Your task to perform on an android device: turn off improve location accuracy Image 0: 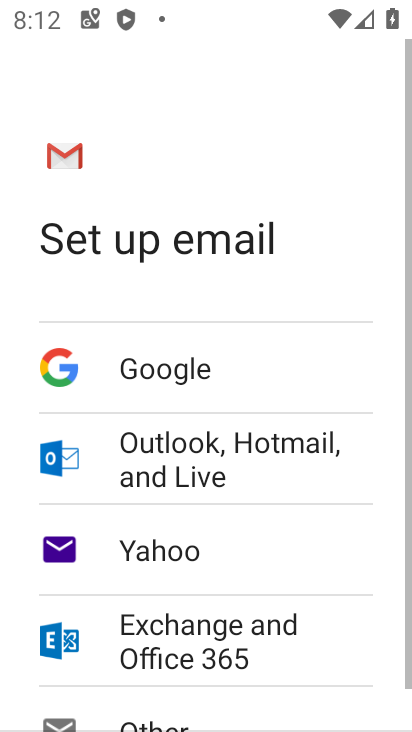
Step 0: press home button
Your task to perform on an android device: turn off improve location accuracy Image 1: 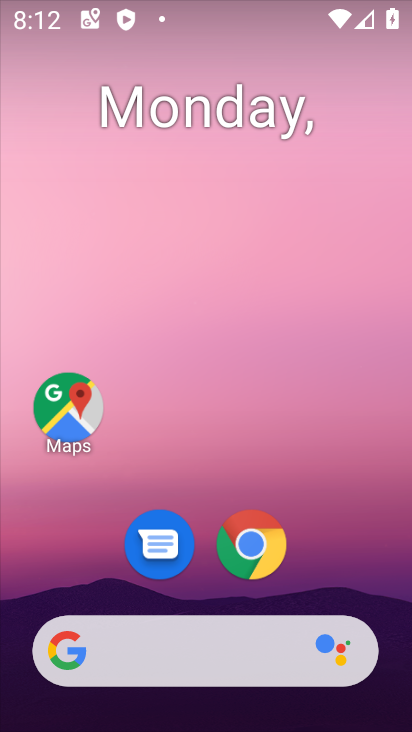
Step 1: drag from (195, 593) to (87, 2)
Your task to perform on an android device: turn off improve location accuracy Image 2: 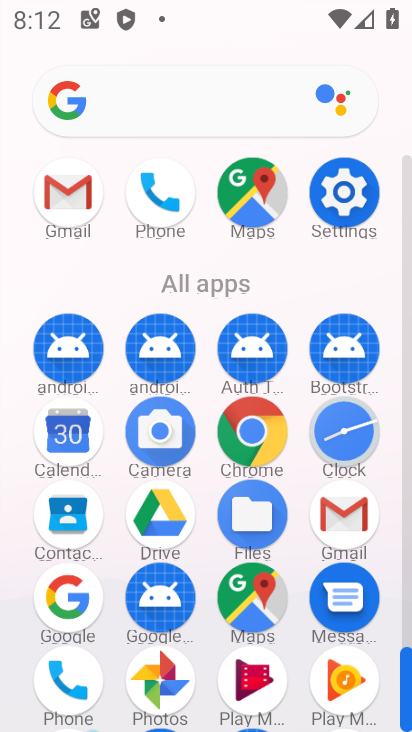
Step 2: click (344, 217)
Your task to perform on an android device: turn off improve location accuracy Image 3: 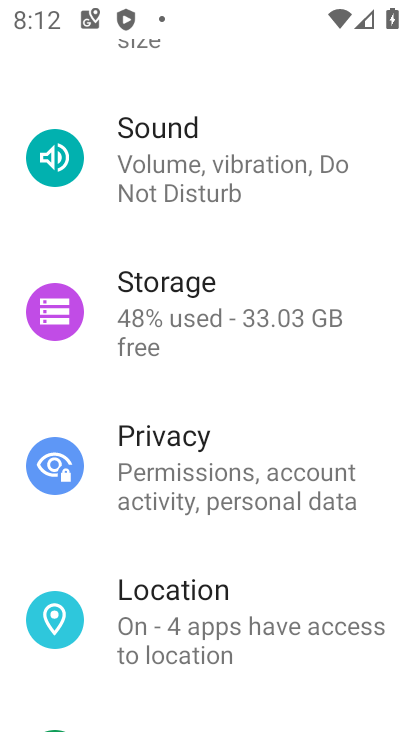
Step 3: click (190, 620)
Your task to perform on an android device: turn off improve location accuracy Image 4: 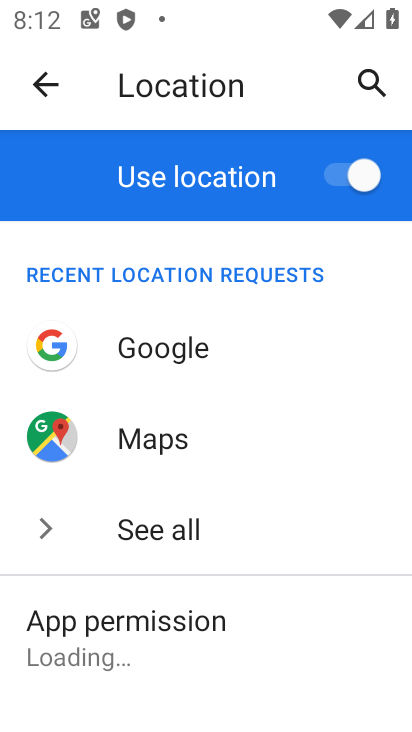
Step 4: drag from (219, 623) to (143, 135)
Your task to perform on an android device: turn off improve location accuracy Image 5: 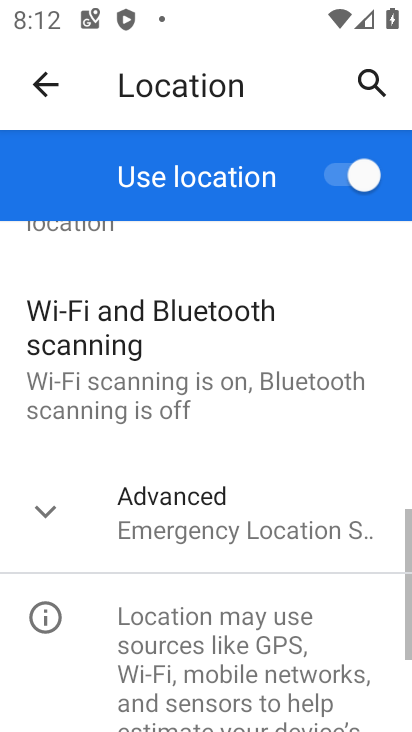
Step 5: click (174, 520)
Your task to perform on an android device: turn off improve location accuracy Image 6: 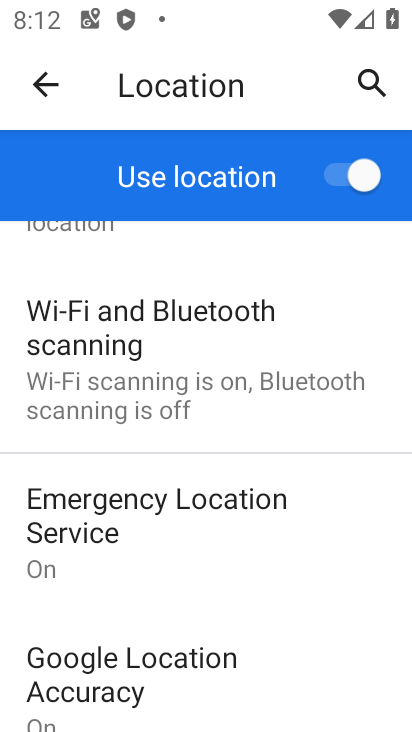
Step 6: click (168, 672)
Your task to perform on an android device: turn off improve location accuracy Image 7: 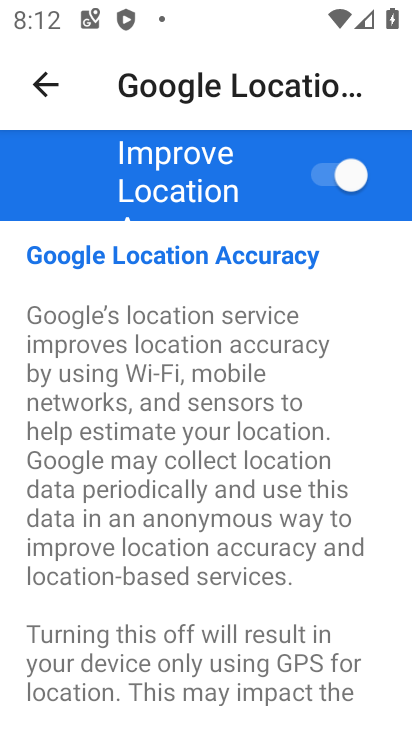
Step 7: drag from (202, 647) to (189, 587)
Your task to perform on an android device: turn off improve location accuracy Image 8: 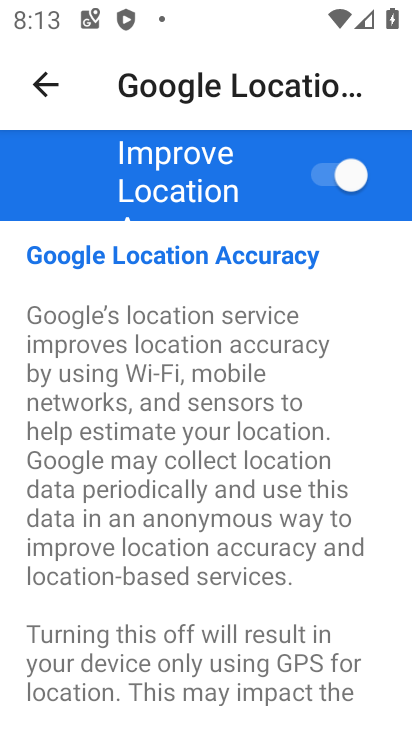
Step 8: click (351, 184)
Your task to perform on an android device: turn off improve location accuracy Image 9: 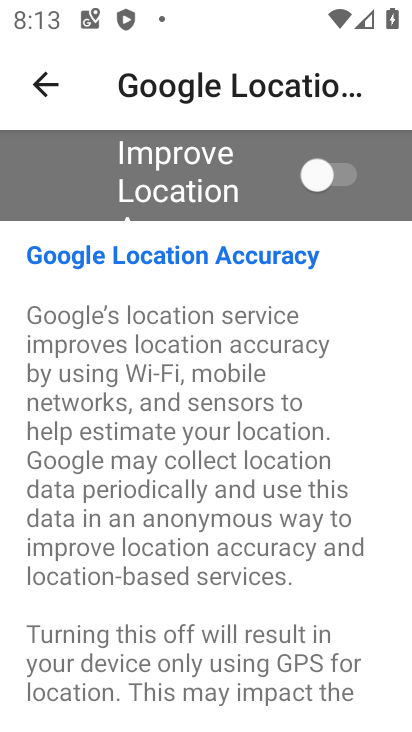
Step 9: task complete